Your task to perform on an android device: turn on showing notifications on the lock screen Image 0: 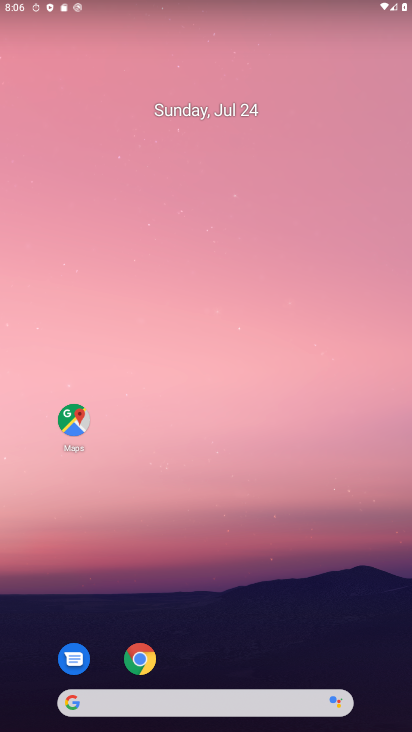
Step 0: drag from (250, 675) to (293, 0)
Your task to perform on an android device: turn on showing notifications on the lock screen Image 1: 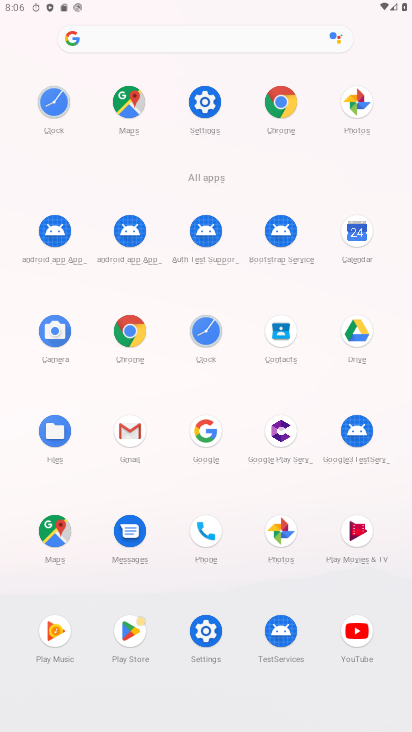
Step 1: click (203, 628)
Your task to perform on an android device: turn on showing notifications on the lock screen Image 2: 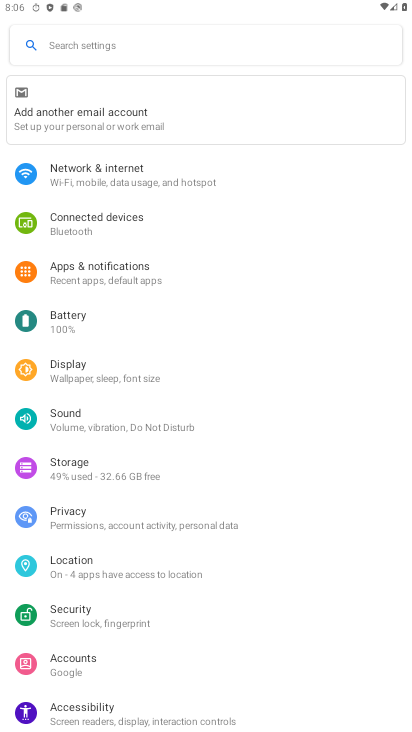
Step 2: click (116, 277)
Your task to perform on an android device: turn on showing notifications on the lock screen Image 3: 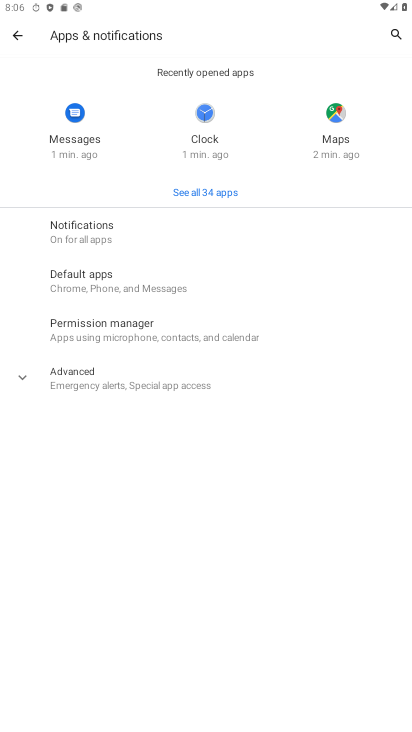
Step 3: click (101, 236)
Your task to perform on an android device: turn on showing notifications on the lock screen Image 4: 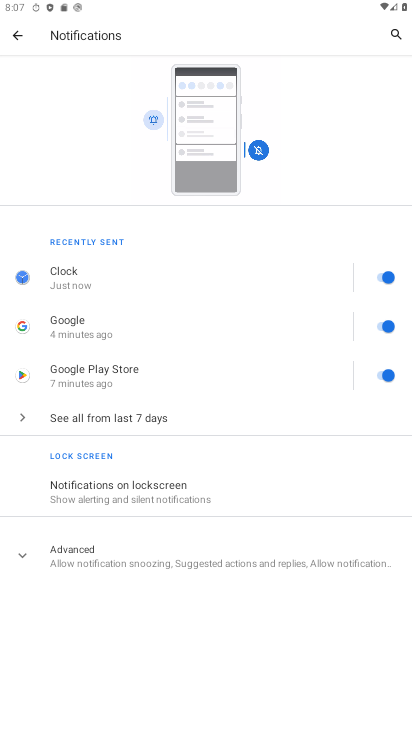
Step 4: click (131, 500)
Your task to perform on an android device: turn on showing notifications on the lock screen Image 5: 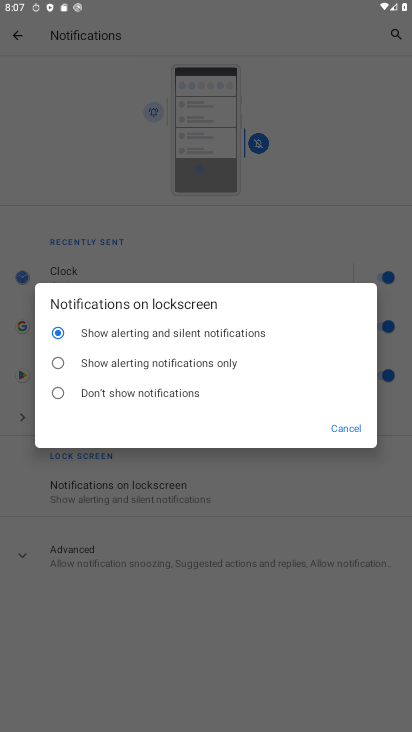
Step 5: task complete